Your task to perform on an android device: open app "Flipkart Online Shopping App" (install if not already installed) and go to login screen Image 0: 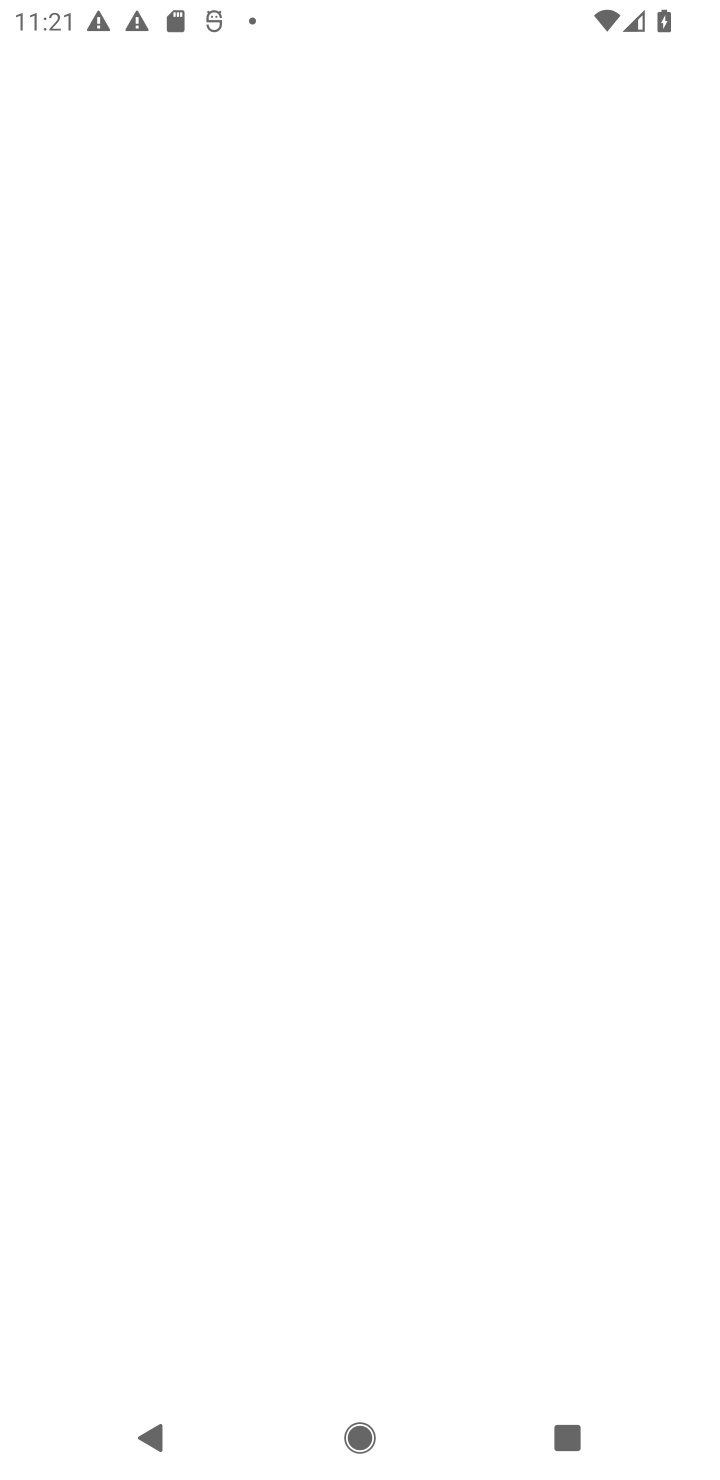
Step 0: press home button
Your task to perform on an android device: open app "Flipkart Online Shopping App" (install if not already installed) and go to login screen Image 1: 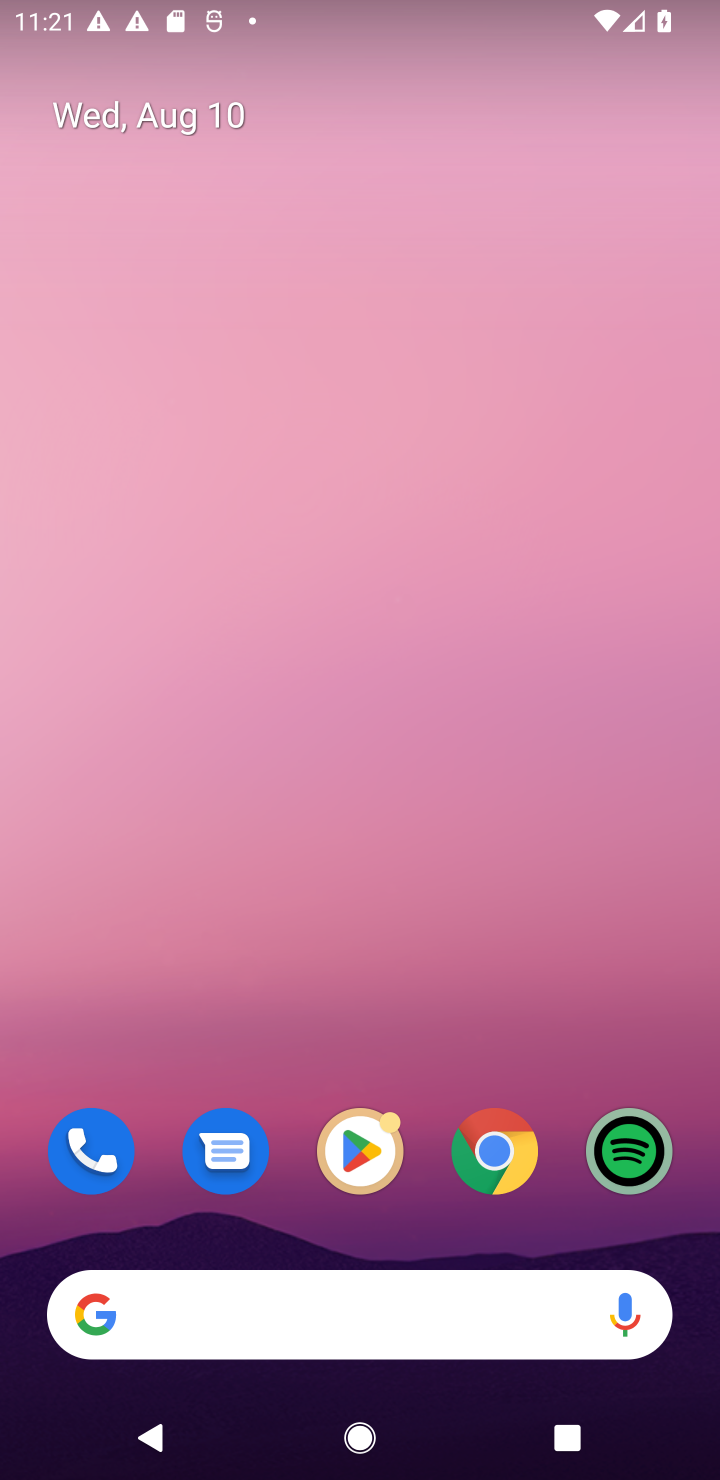
Step 1: click (361, 1147)
Your task to perform on an android device: open app "Flipkart Online Shopping App" (install if not already installed) and go to login screen Image 2: 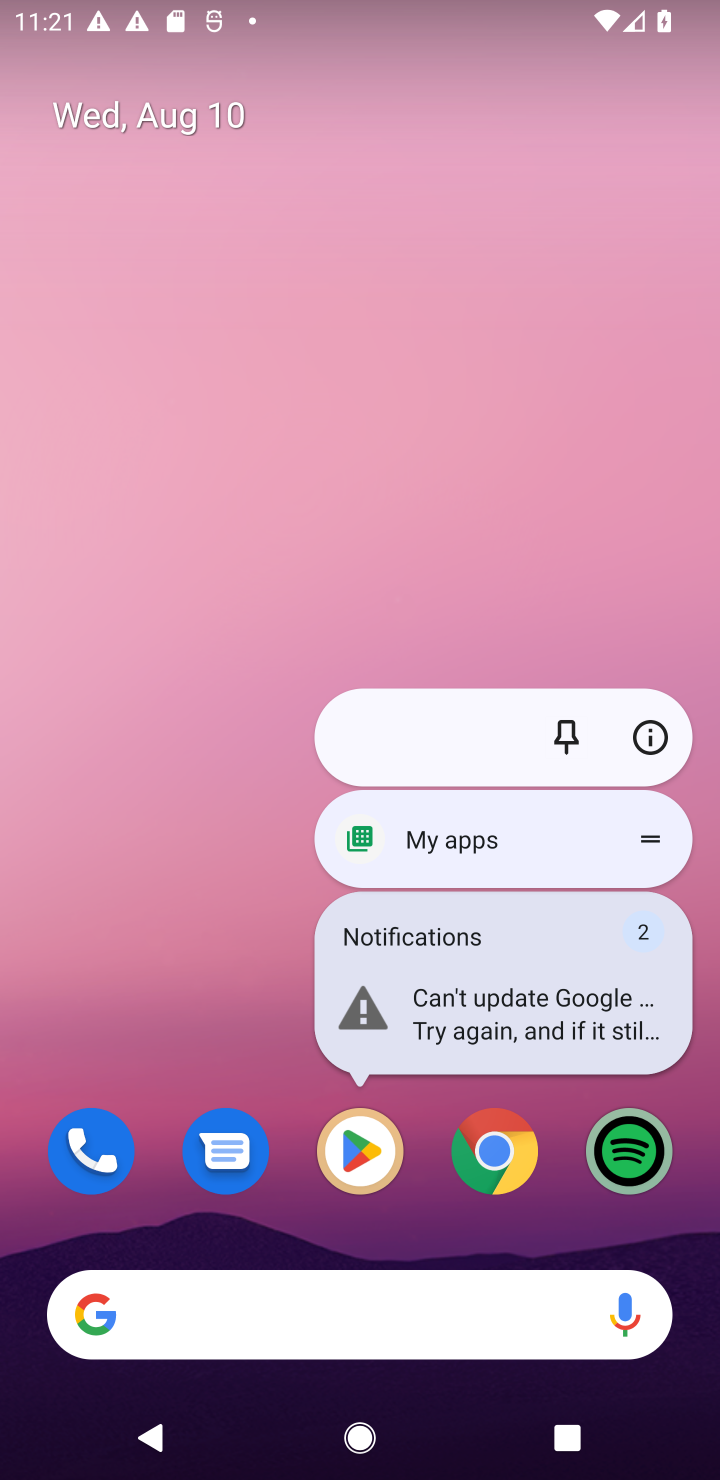
Step 2: click (366, 1142)
Your task to perform on an android device: open app "Flipkart Online Shopping App" (install if not already installed) and go to login screen Image 3: 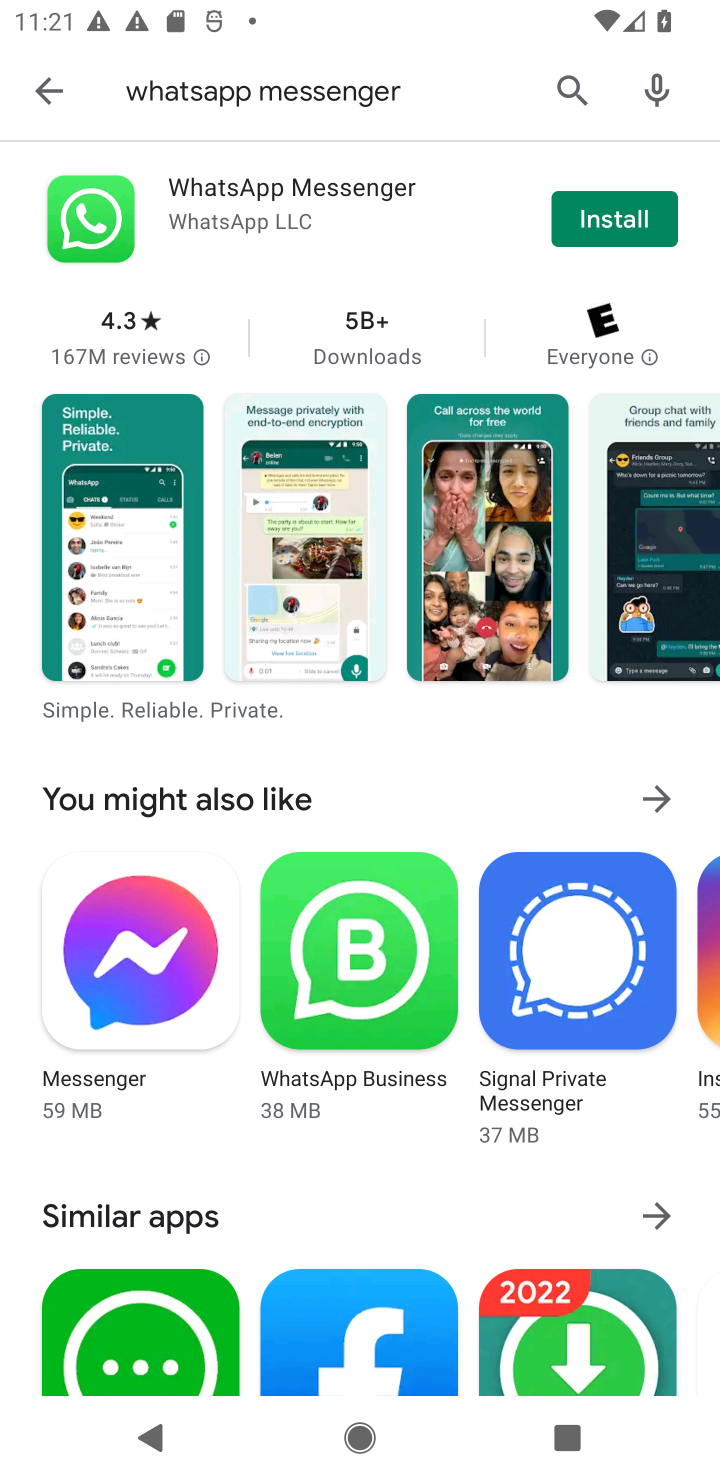
Step 3: click (573, 80)
Your task to perform on an android device: open app "Flipkart Online Shopping App" (install if not already installed) and go to login screen Image 4: 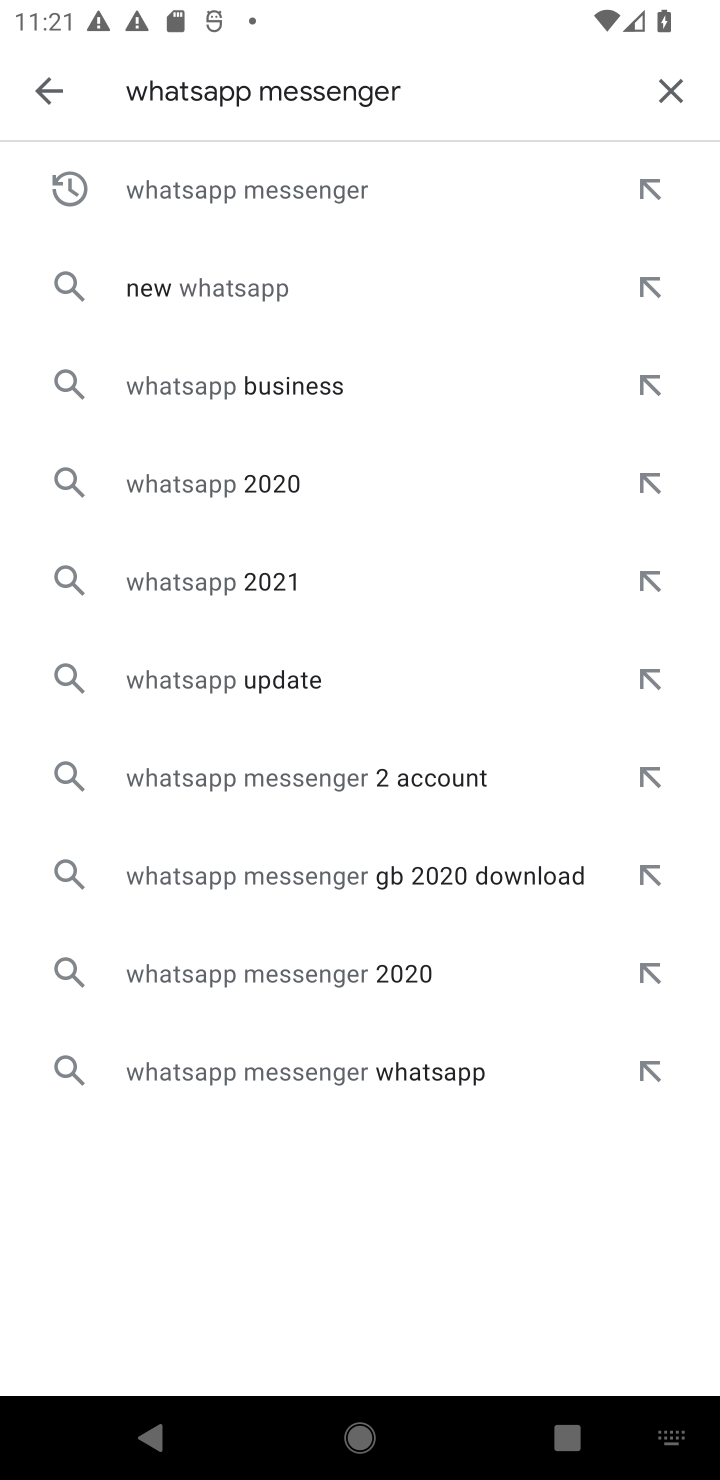
Step 4: click (657, 86)
Your task to perform on an android device: open app "Flipkart Online Shopping App" (install if not already installed) and go to login screen Image 5: 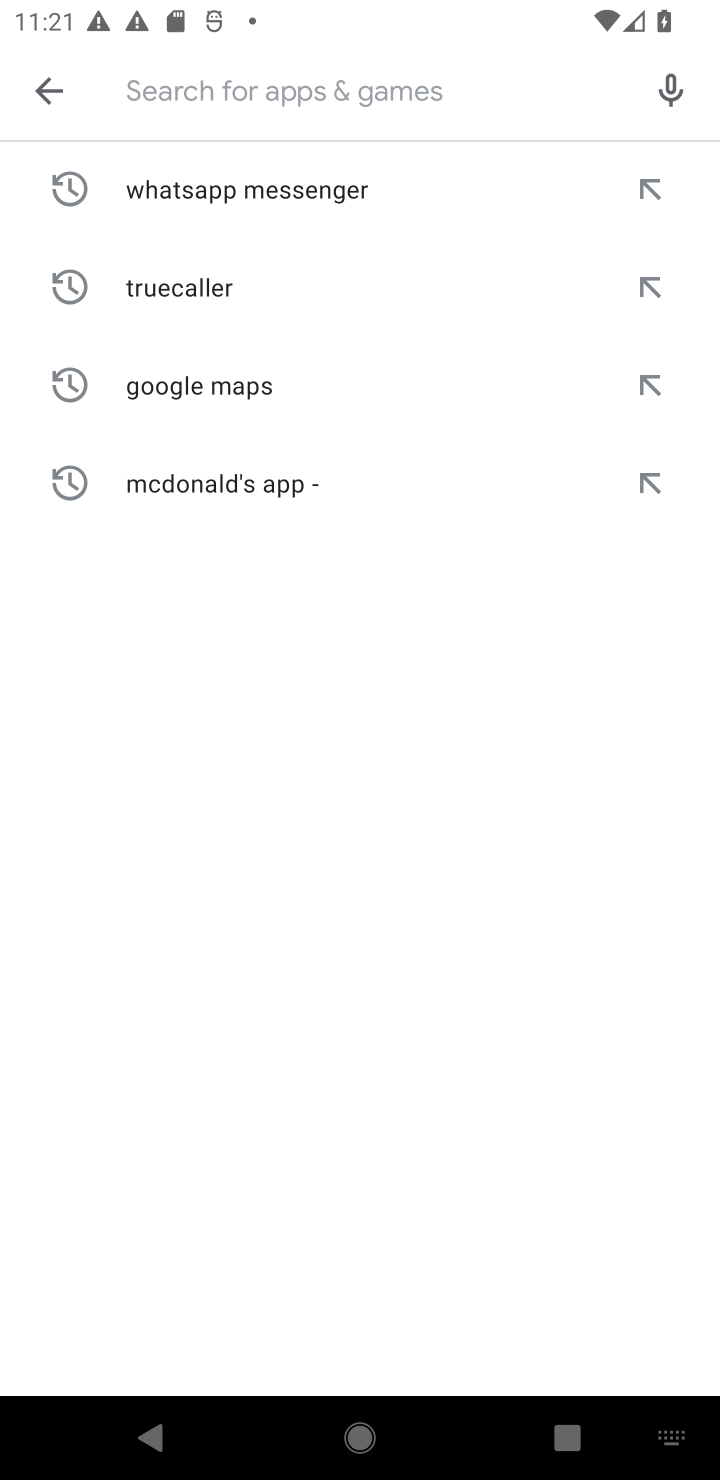
Step 5: type "Flipkart Online Shopping App"
Your task to perform on an android device: open app "Flipkart Online Shopping App" (install if not already installed) and go to login screen Image 6: 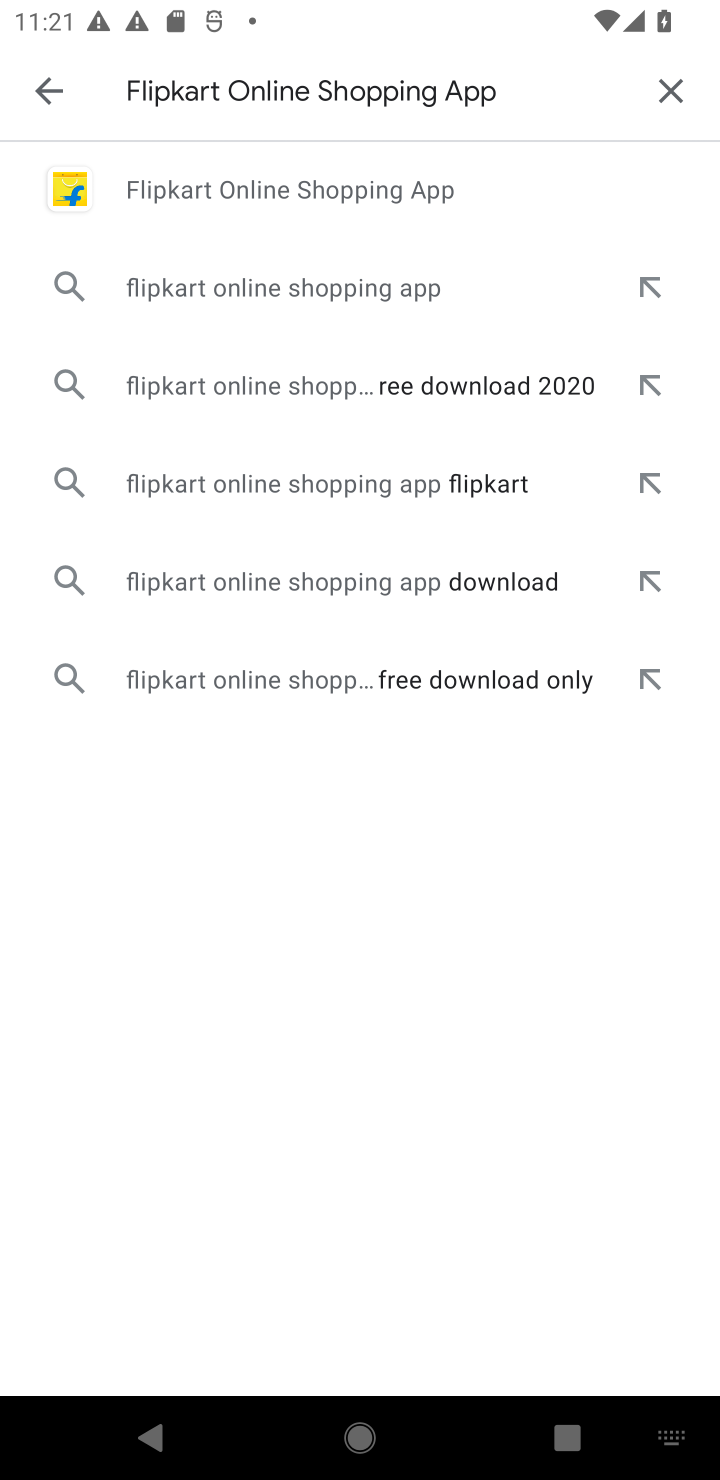
Step 6: click (316, 200)
Your task to perform on an android device: open app "Flipkart Online Shopping App" (install if not already installed) and go to login screen Image 7: 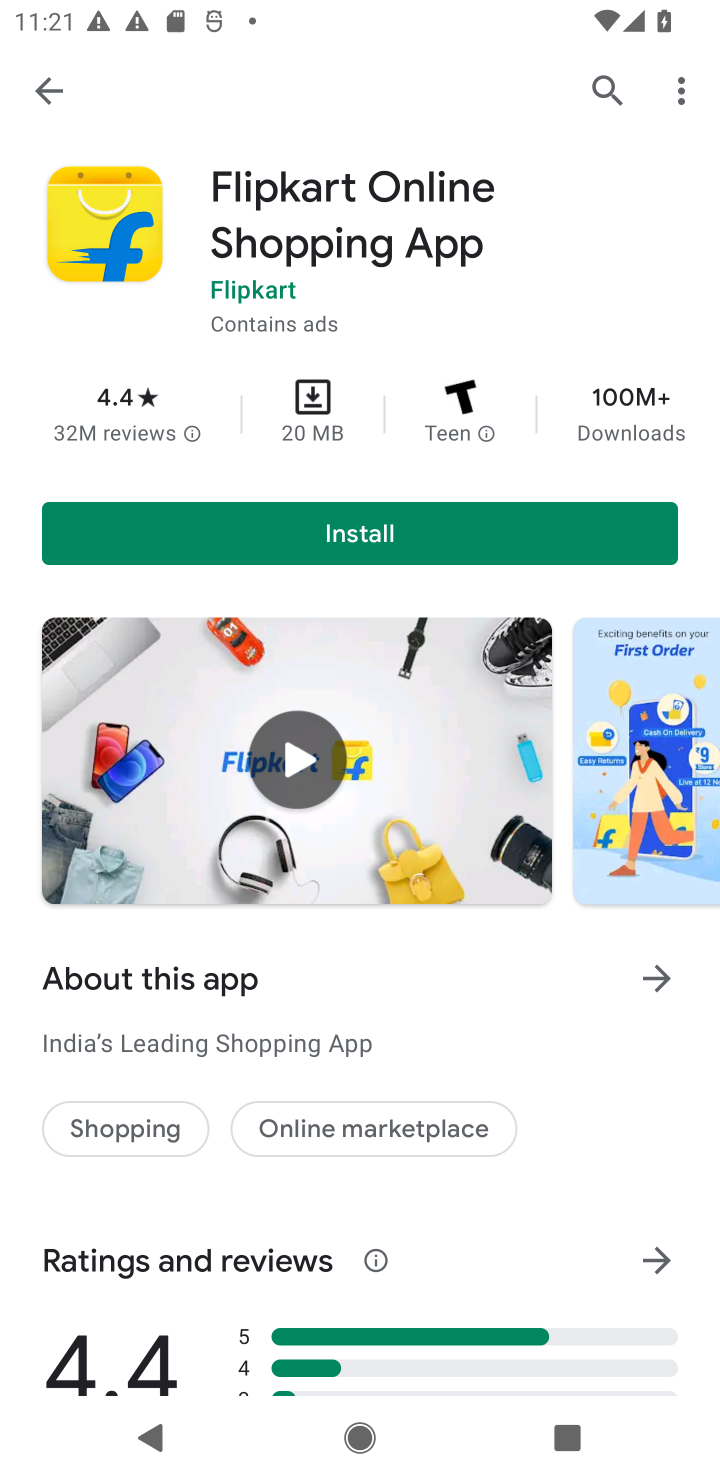
Step 7: click (368, 534)
Your task to perform on an android device: open app "Flipkart Online Shopping App" (install if not already installed) and go to login screen Image 8: 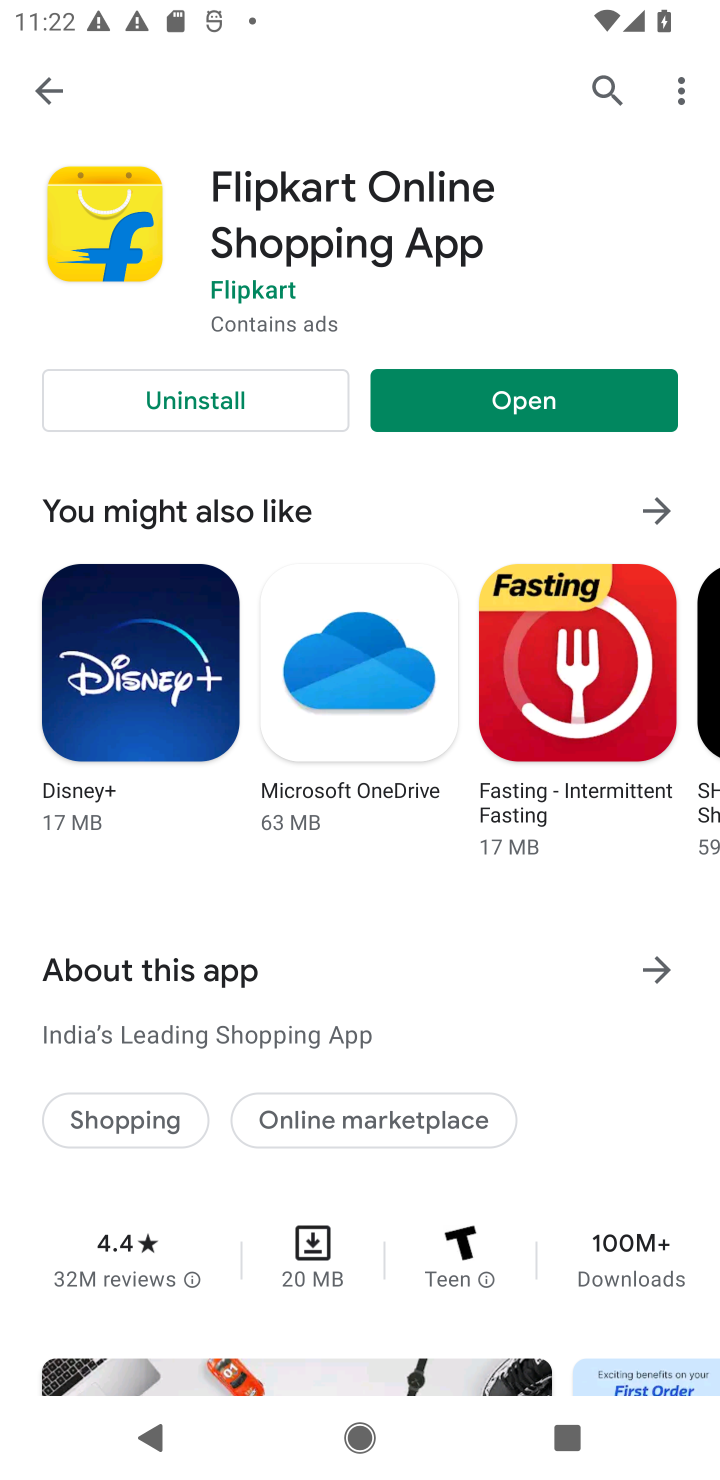
Step 8: click (547, 405)
Your task to perform on an android device: open app "Flipkart Online Shopping App" (install if not already installed) and go to login screen Image 9: 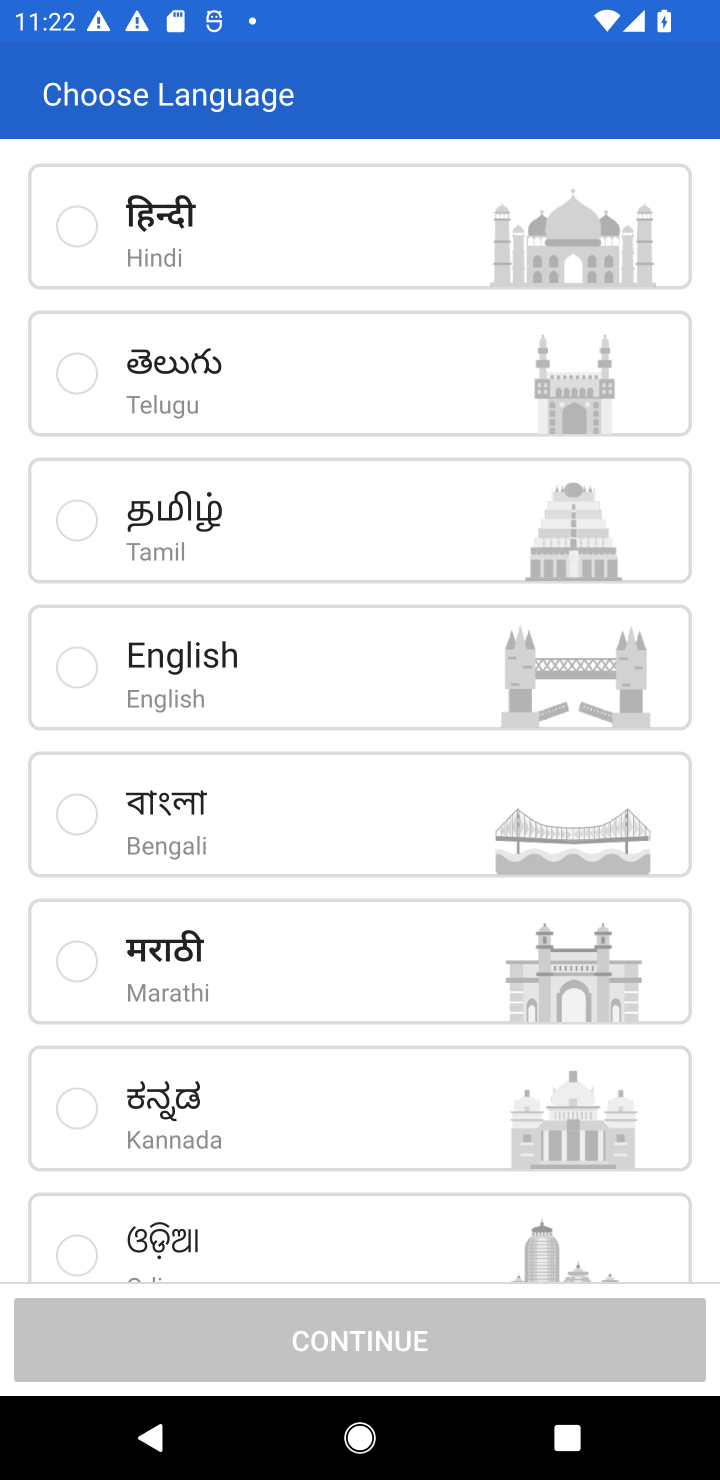
Step 9: click (305, 246)
Your task to perform on an android device: open app "Flipkart Online Shopping App" (install if not already installed) and go to login screen Image 10: 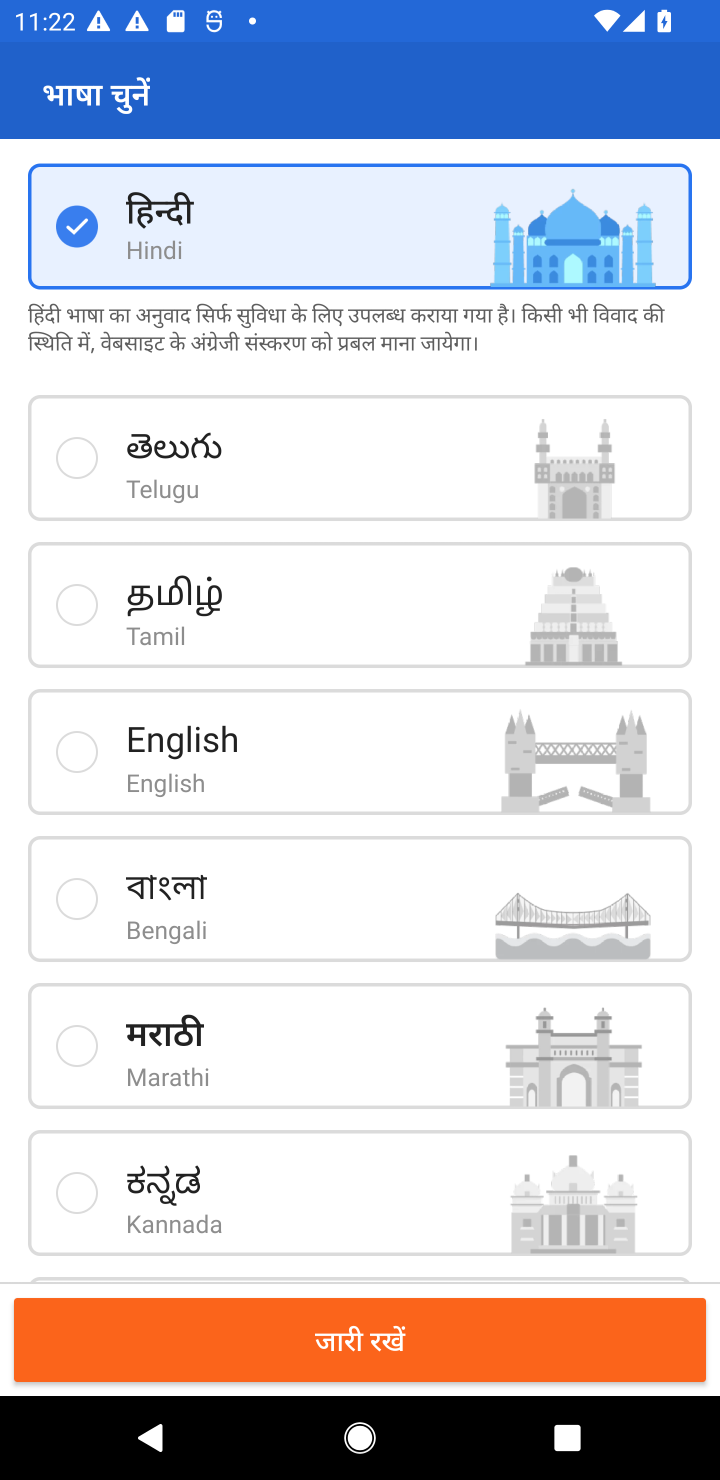
Step 10: click (276, 734)
Your task to perform on an android device: open app "Flipkart Online Shopping App" (install if not already installed) and go to login screen Image 11: 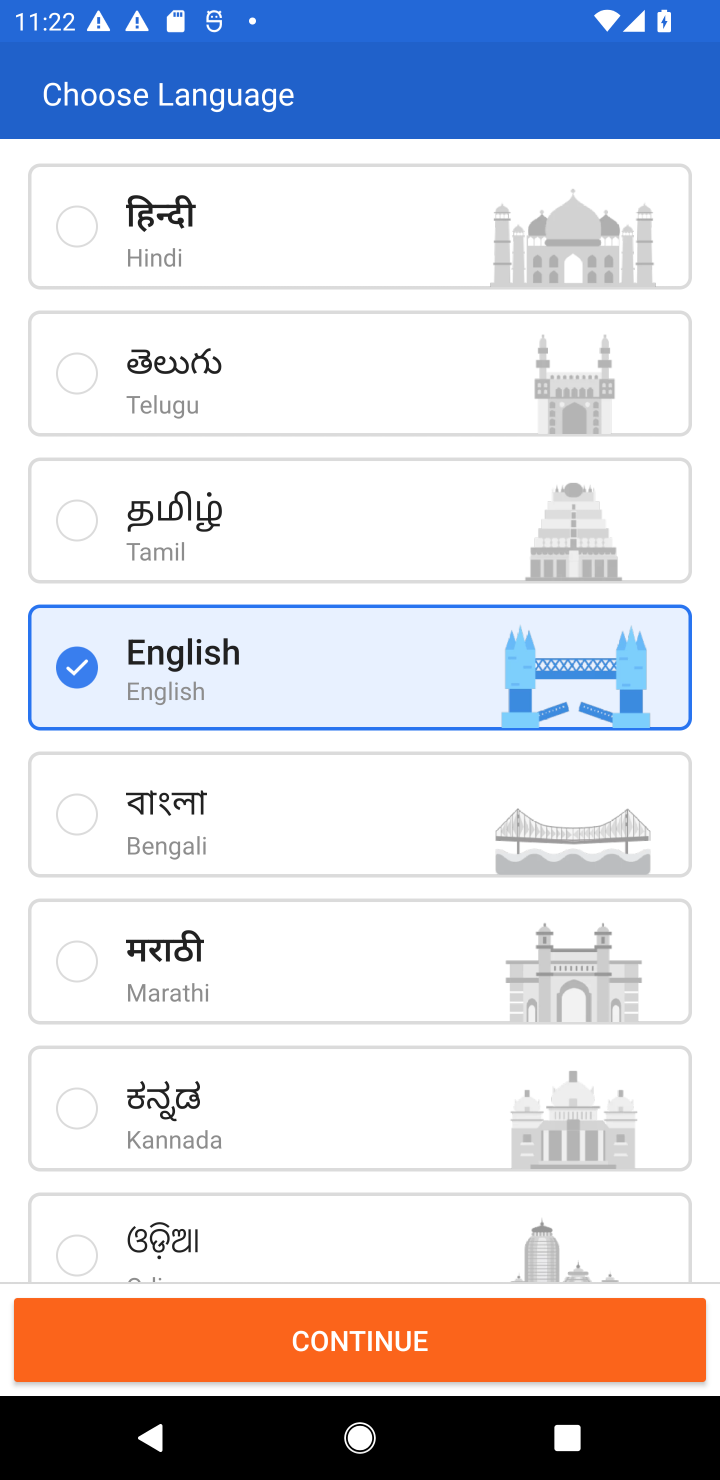
Step 11: click (367, 1340)
Your task to perform on an android device: open app "Flipkart Online Shopping App" (install if not already installed) and go to login screen Image 12: 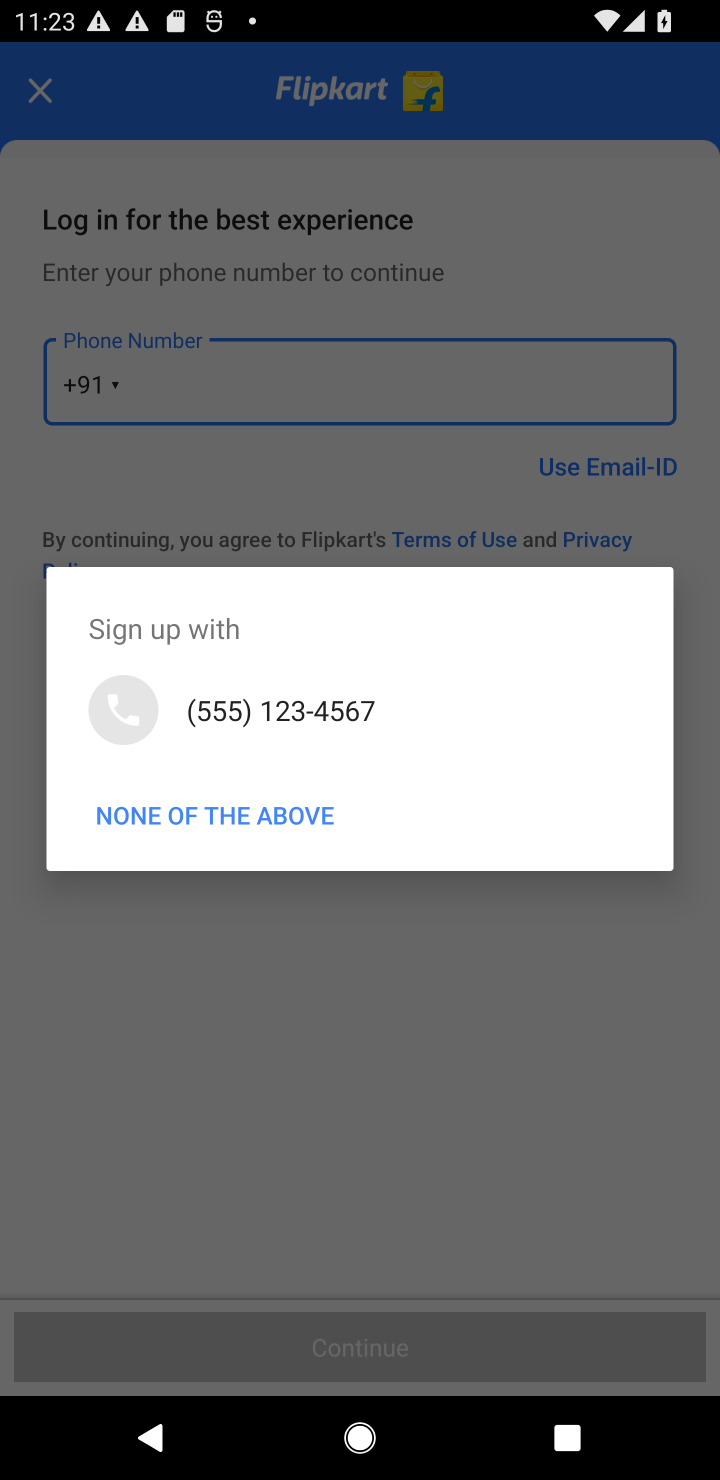
Step 12: click (281, 709)
Your task to perform on an android device: open app "Flipkart Online Shopping App" (install if not already installed) and go to login screen Image 13: 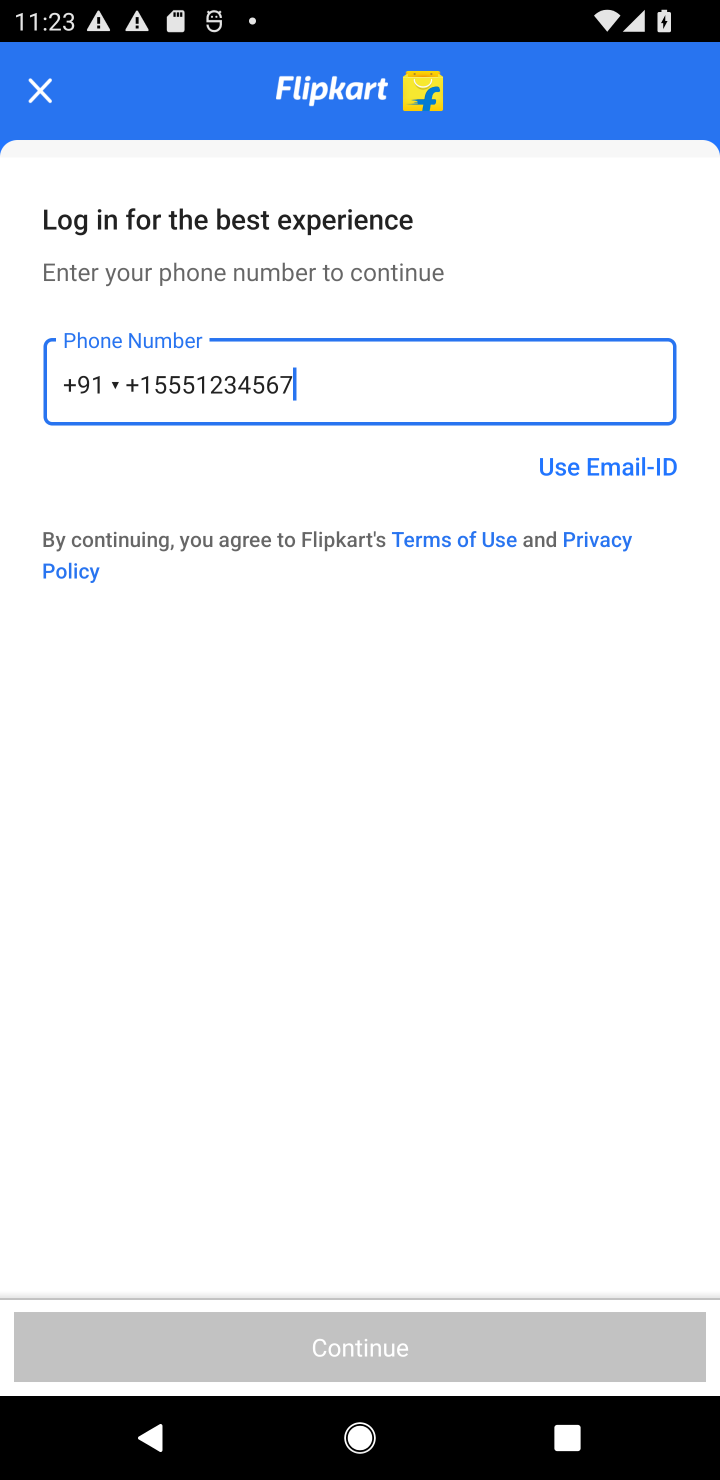
Step 13: task complete